Your task to perform on an android device: change the clock display to analog Image 0: 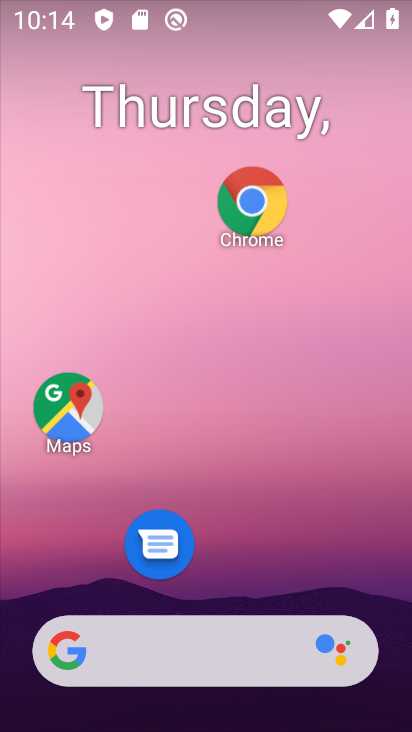
Step 0: drag from (203, 562) to (197, 86)
Your task to perform on an android device: change the clock display to analog Image 1: 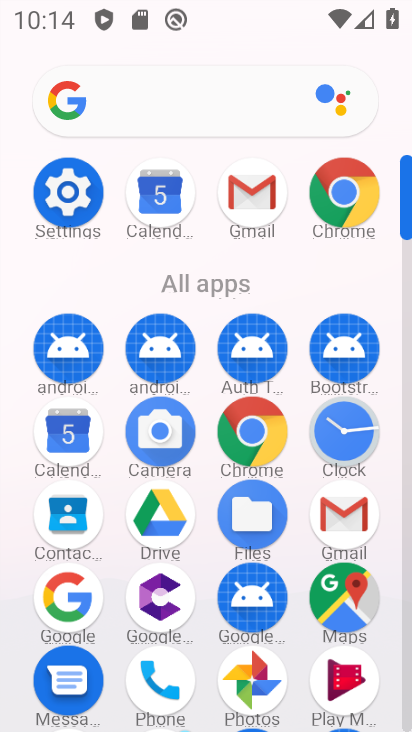
Step 1: click (339, 424)
Your task to perform on an android device: change the clock display to analog Image 2: 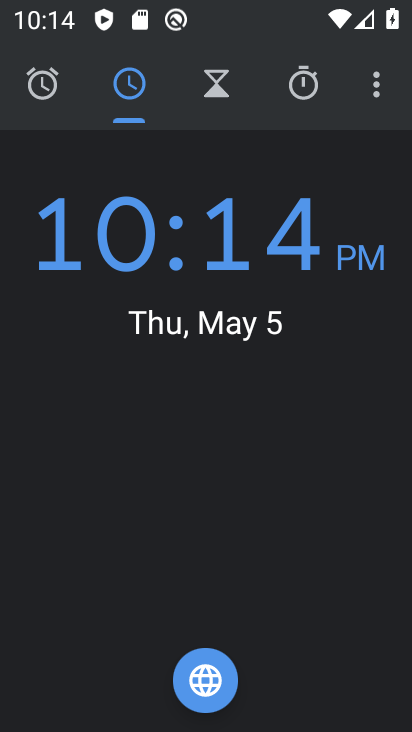
Step 2: click (373, 73)
Your task to perform on an android device: change the clock display to analog Image 3: 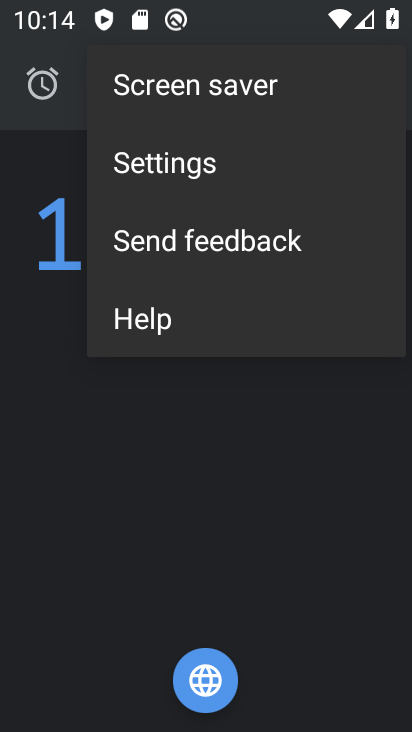
Step 3: click (226, 167)
Your task to perform on an android device: change the clock display to analog Image 4: 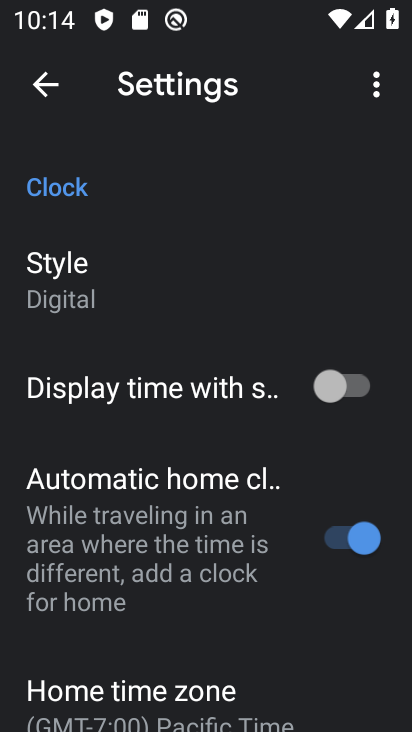
Step 4: click (110, 284)
Your task to perform on an android device: change the clock display to analog Image 5: 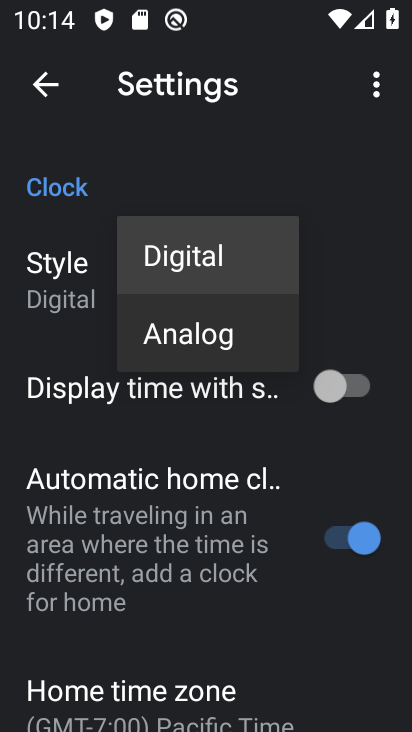
Step 5: click (178, 339)
Your task to perform on an android device: change the clock display to analog Image 6: 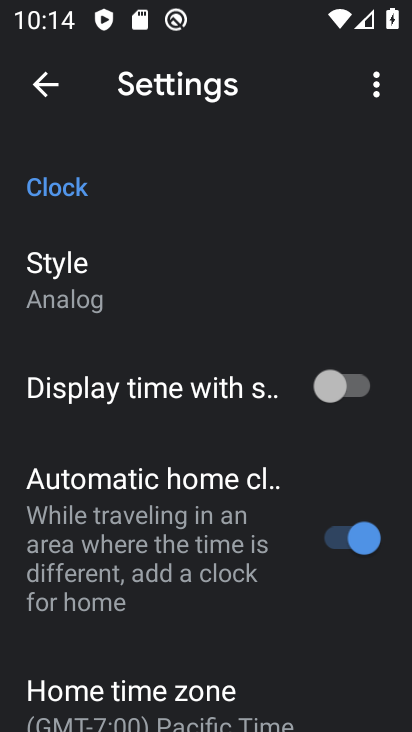
Step 6: task complete